Your task to perform on an android device: see creations saved in the google photos Image 0: 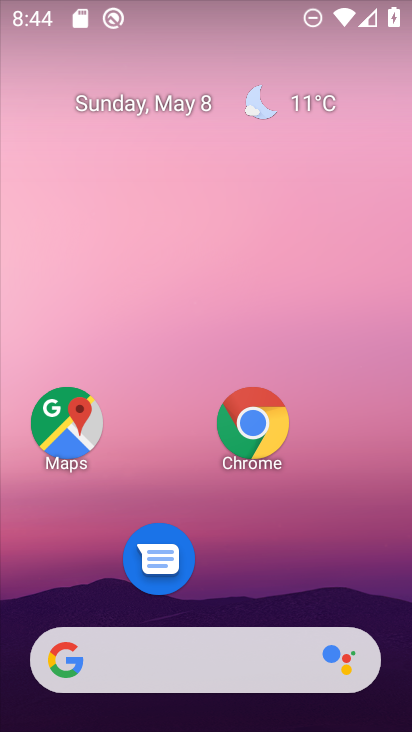
Step 0: drag from (350, 597) to (357, 43)
Your task to perform on an android device: see creations saved in the google photos Image 1: 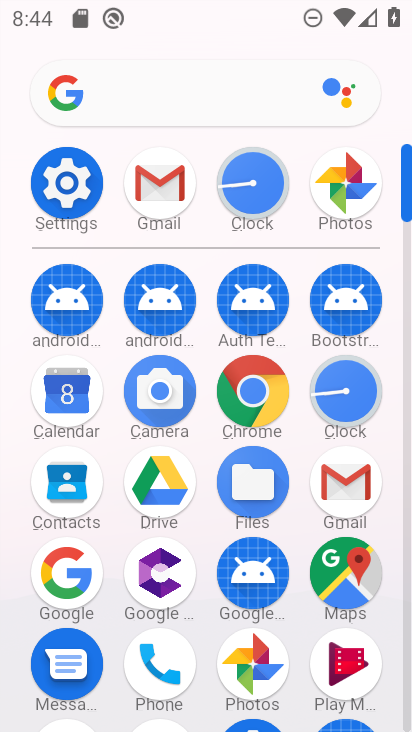
Step 1: click (349, 181)
Your task to perform on an android device: see creations saved in the google photos Image 2: 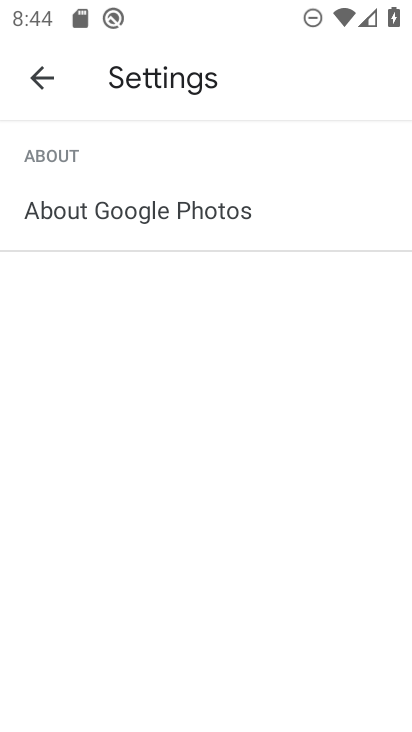
Step 2: click (38, 85)
Your task to perform on an android device: see creations saved in the google photos Image 3: 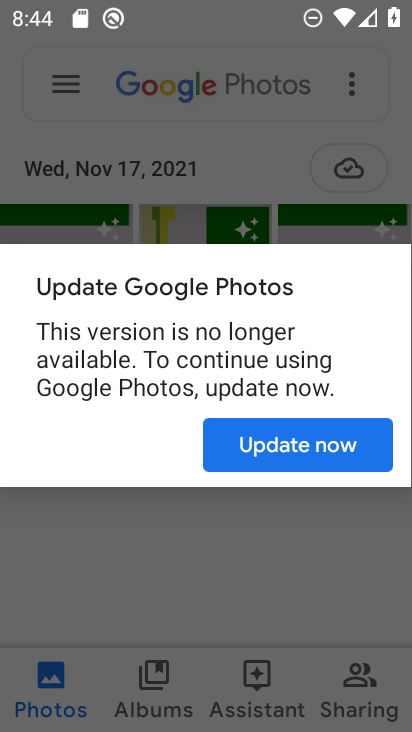
Step 3: click (255, 437)
Your task to perform on an android device: see creations saved in the google photos Image 4: 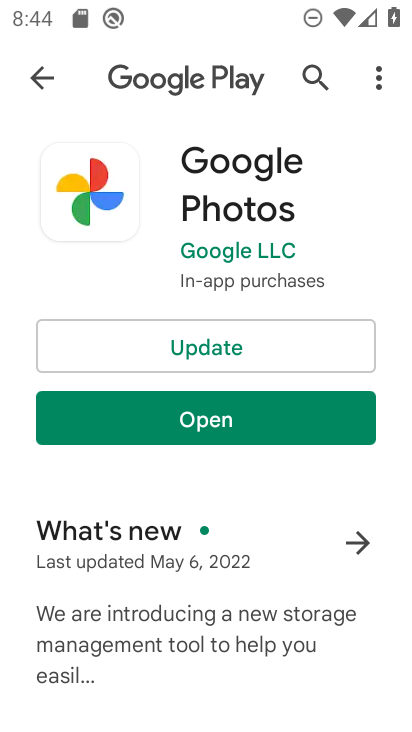
Step 4: click (207, 420)
Your task to perform on an android device: see creations saved in the google photos Image 5: 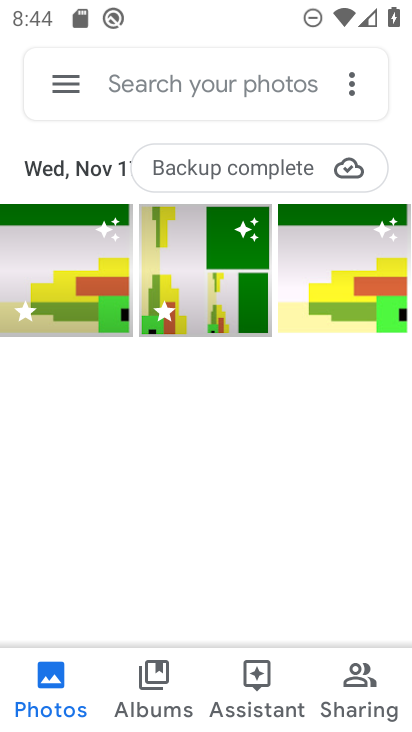
Step 5: click (126, 87)
Your task to perform on an android device: see creations saved in the google photos Image 6: 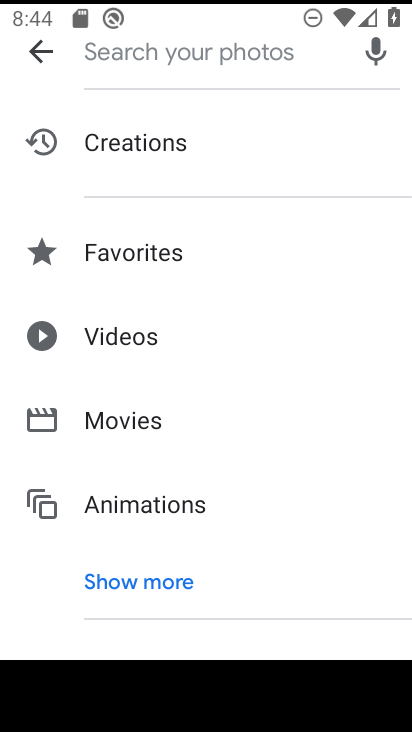
Step 6: click (135, 146)
Your task to perform on an android device: see creations saved in the google photos Image 7: 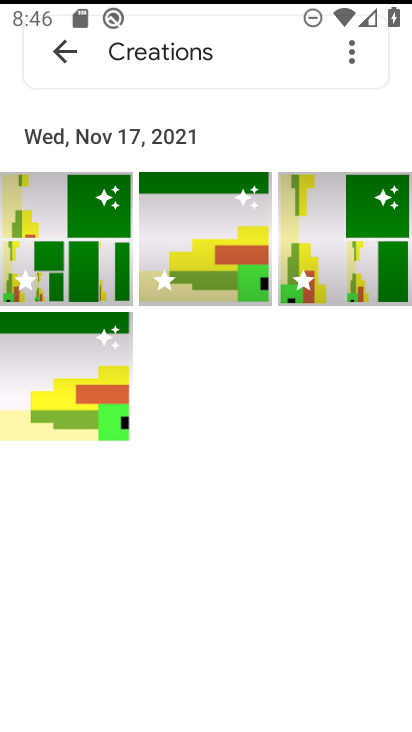
Step 7: task complete